Your task to perform on an android device: Is it going to rain today? Image 0: 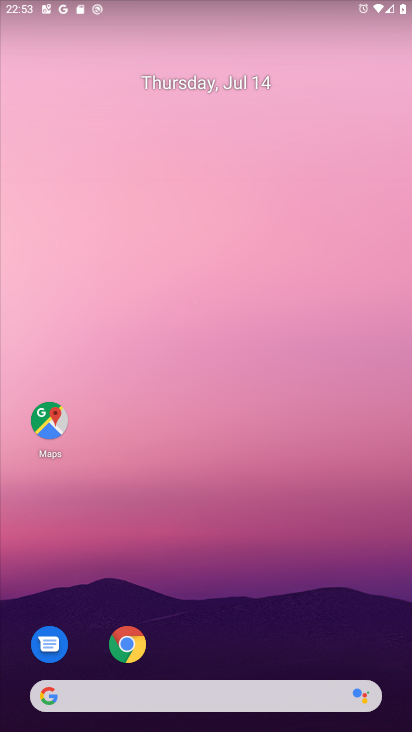
Step 0: click (160, 701)
Your task to perform on an android device: Is it going to rain today? Image 1: 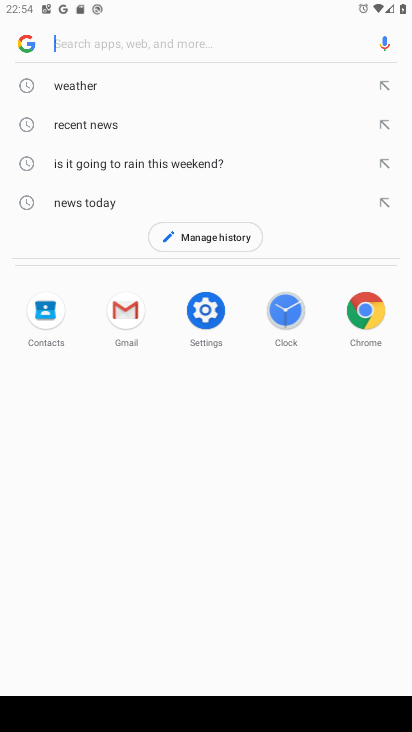
Step 1: click (165, 83)
Your task to perform on an android device: Is it going to rain today? Image 2: 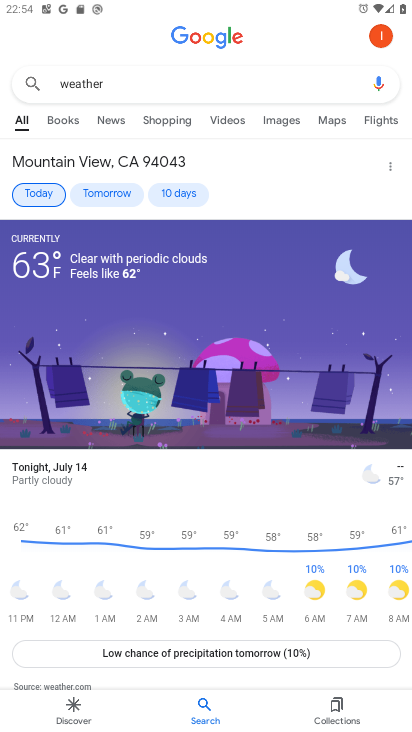
Step 2: task complete